Your task to perform on an android device: Search for sushi restaurants on Maps Image 0: 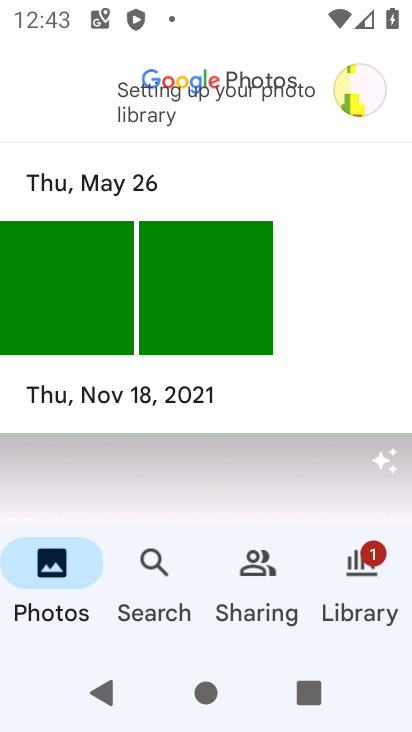
Step 0: press home button
Your task to perform on an android device: Search for sushi restaurants on Maps Image 1: 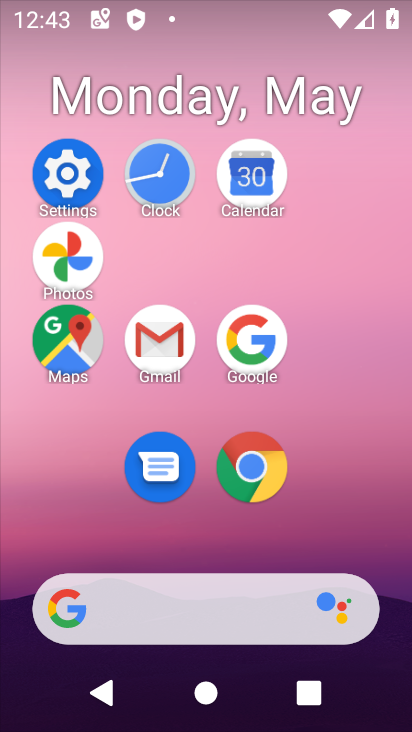
Step 1: click (83, 344)
Your task to perform on an android device: Search for sushi restaurants on Maps Image 2: 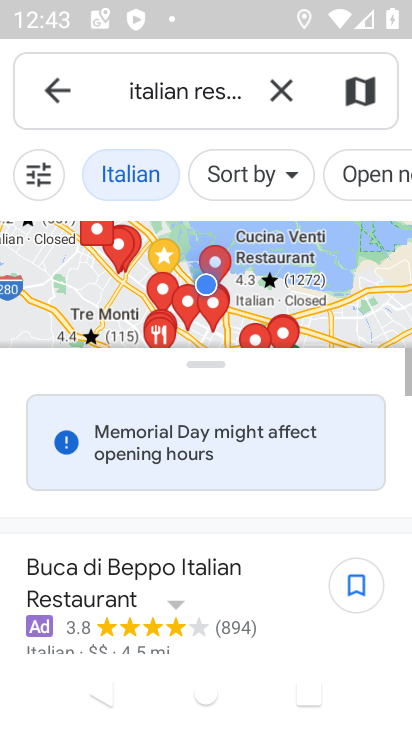
Step 2: click (281, 84)
Your task to perform on an android device: Search for sushi restaurants on Maps Image 3: 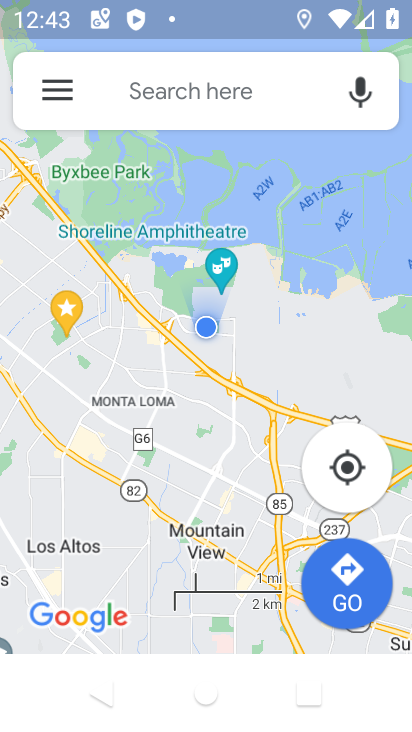
Step 3: click (246, 88)
Your task to perform on an android device: Search for sushi restaurants on Maps Image 4: 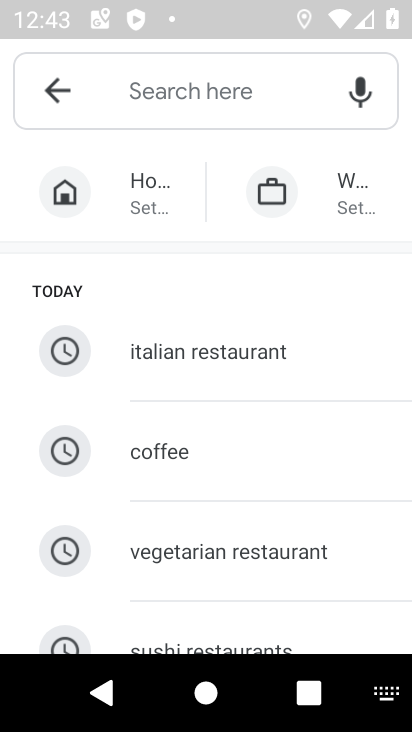
Step 4: click (224, 632)
Your task to perform on an android device: Search for sushi restaurants on Maps Image 5: 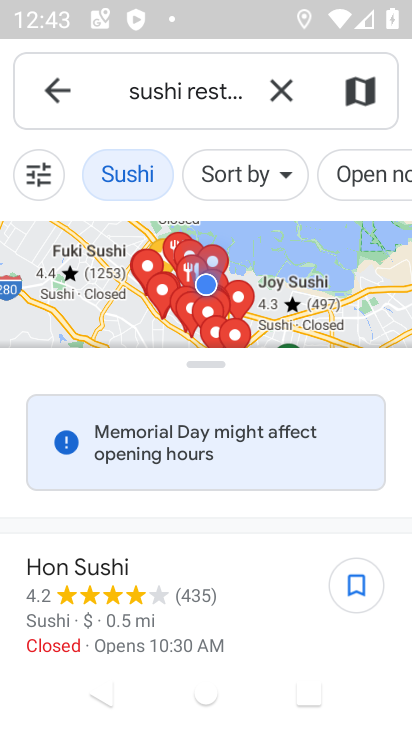
Step 5: task complete